Your task to perform on an android device: open the mobile data screen to see how much data has been used Image 0: 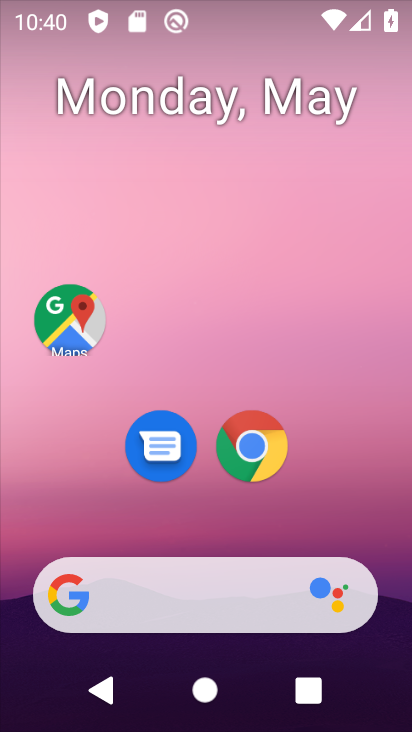
Step 0: drag from (388, 340) to (393, 4)
Your task to perform on an android device: open the mobile data screen to see how much data has been used Image 1: 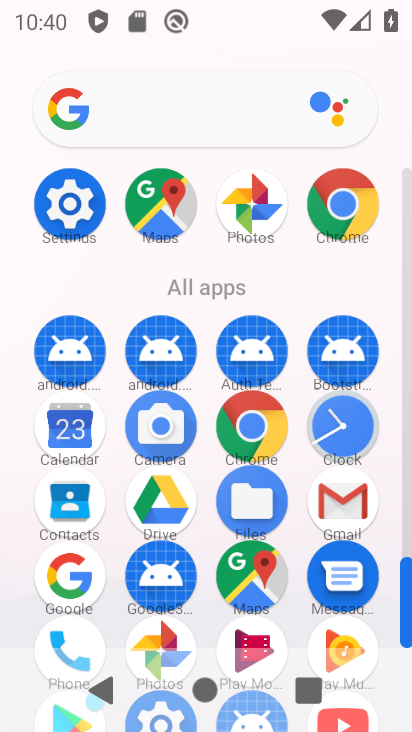
Step 1: click (53, 231)
Your task to perform on an android device: open the mobile data screen to see how much data has been used Image 2: 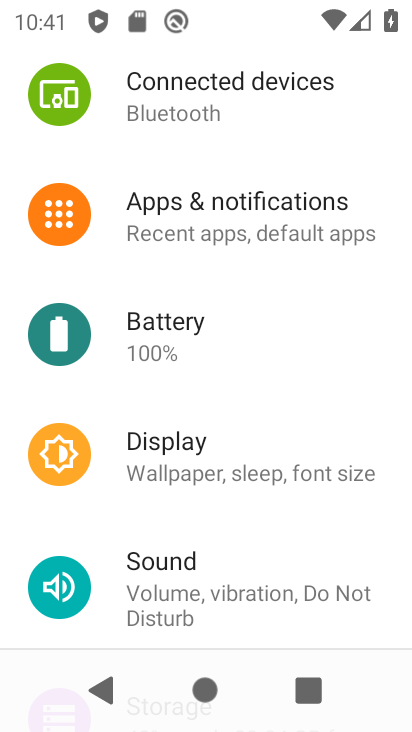
Step 2: drag from (165, 109) to (30, 731)
Your task to perform on an android device: open the mobile data screen to see how much data has been used Image 3: 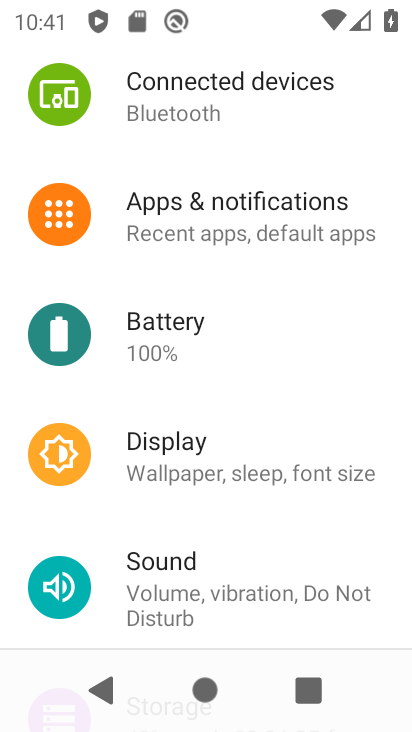
Step 3: drag from (228, 190) to (54, 713)
Your task to perform on an android device: open the mobile data screen to see how much data has been used Image 4: 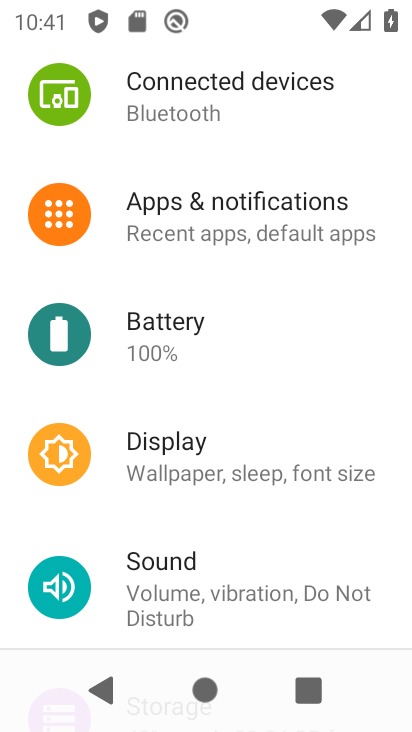
Step 4: drag from (258, 212) to (204, 655)
Your task to perform on an android device: open the mobile data screen to see how much data has been used Image 5: 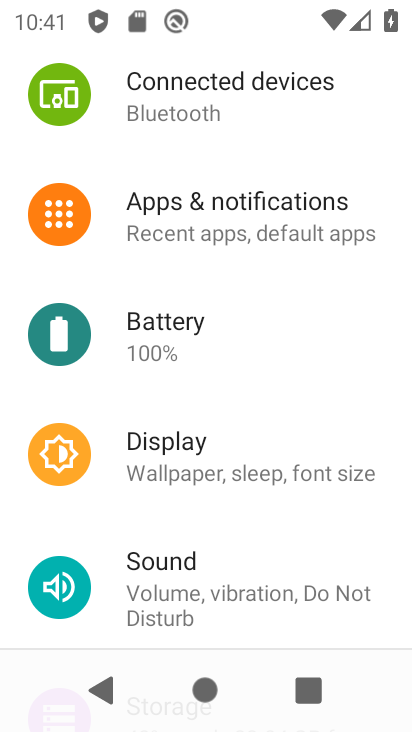
Step 5: drag from (155, 120) to (157, 665)
Your task to perform on an android device: open the mobile data screen to see how much data has been used Image 6: 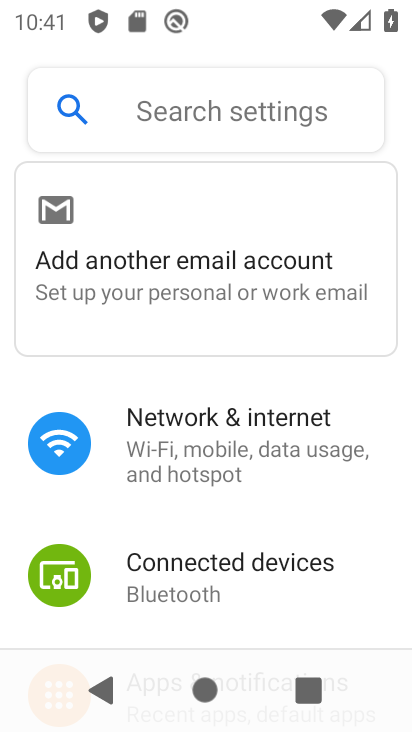
Step 6: click (187, 441)
Your task to perform on an android device: open the mobile data screen to see how much data has been used Image 7: 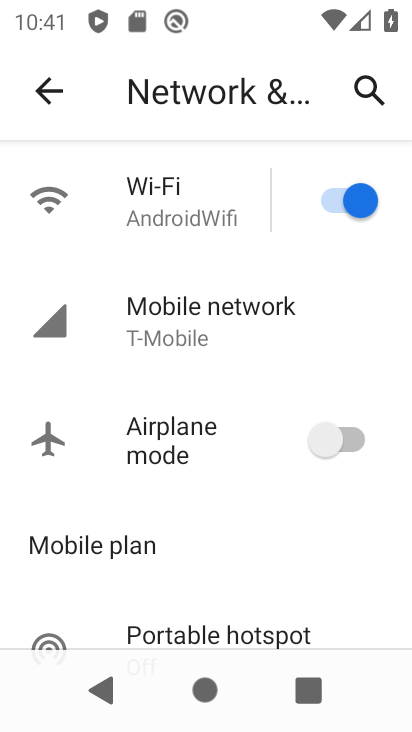
Step 7: click (203, 334)
Your task to perform on an android device: open the mobile data screen to see how much data has been used Image 8: 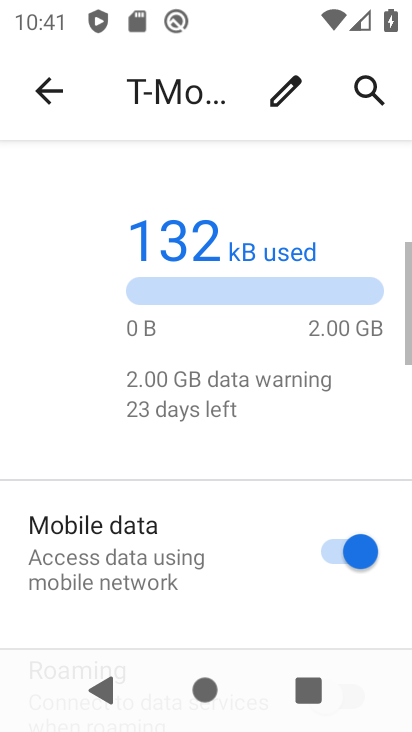
Step 8: click (203, 336)
Your task to perform on an android device: open the mobile data screen to see how much data has been used Image 9: 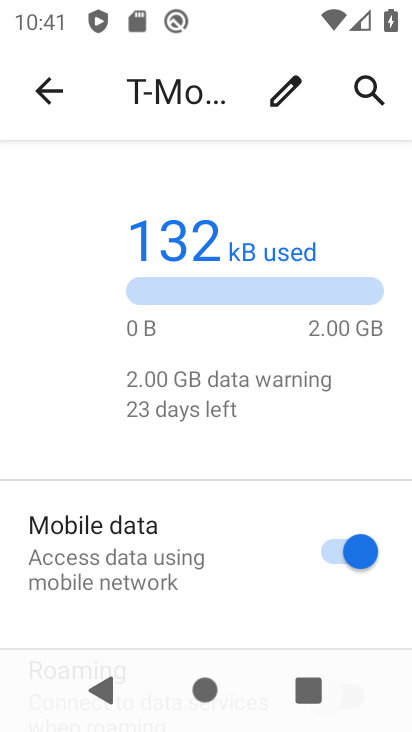
Step 9: task complete